Your task to perform on an android device: Open the web browser Image 0: 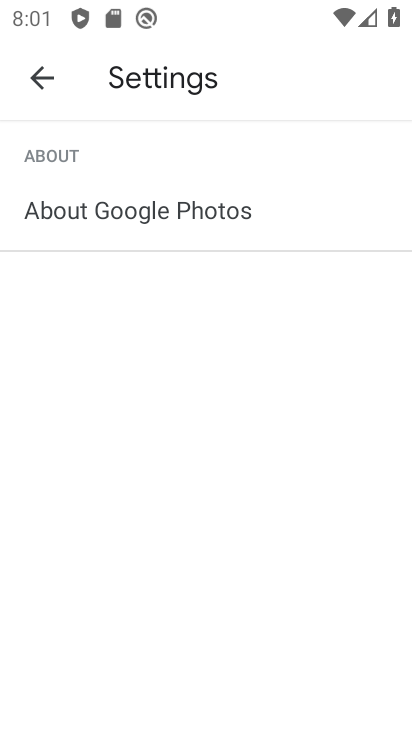
Step 0: press home button
Your task to perform on an android device: Open the web browser Image 1: 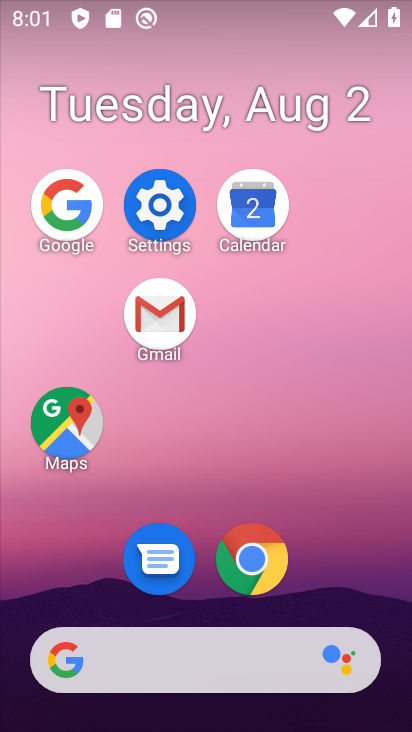
Step 1: click (265, 565)
Your task to perform on an android device: Open the web browser Image 2: 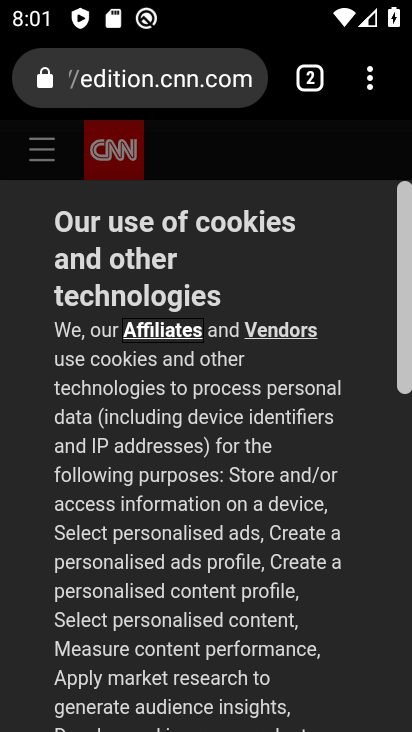
Step 2: task complete